Your task to perform on an android device: Open eBay Image 0: 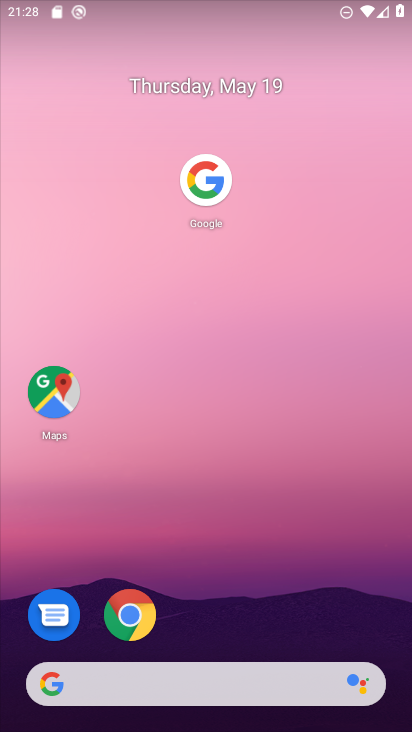
Step 0: drag from (241, 609) to (275, 67)
Your task to perform on an android device: Open eBay Image 1: 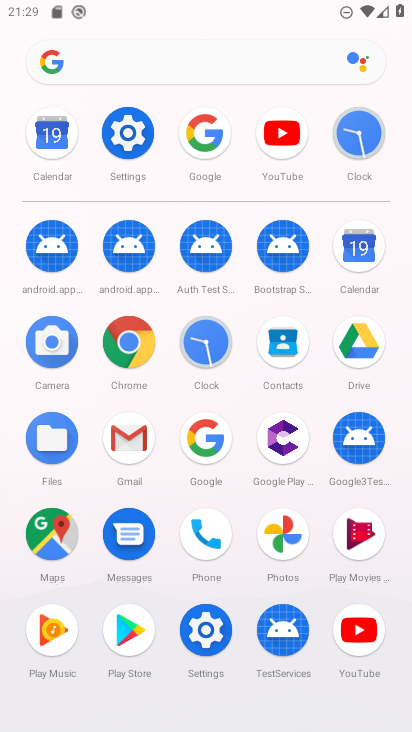
Step 1: click (203, 145)
Your task to perform on an android device: Open eBay Image 2: 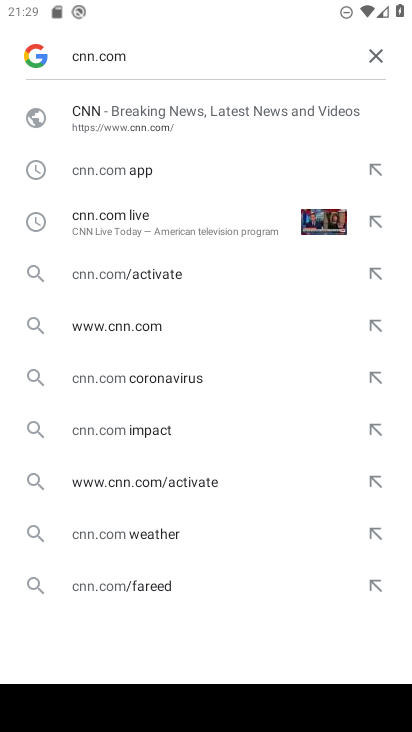
Step 2: click (379, 61)
Your task to perform on an android device: Open eBay Image 3: 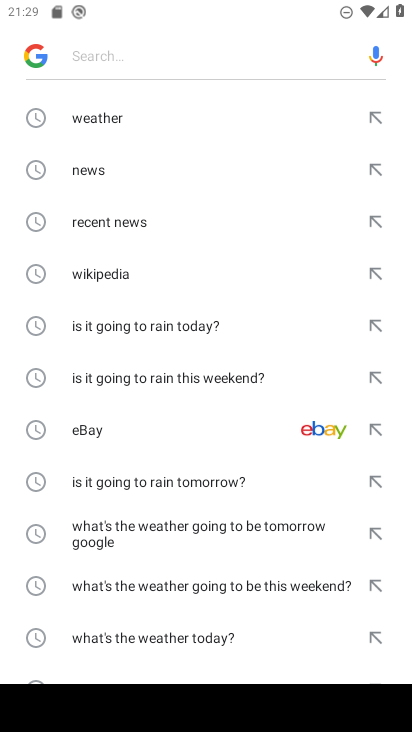
Step 3: click (141, 431)
Your task to perform on an android device: Open eBay Image 4: 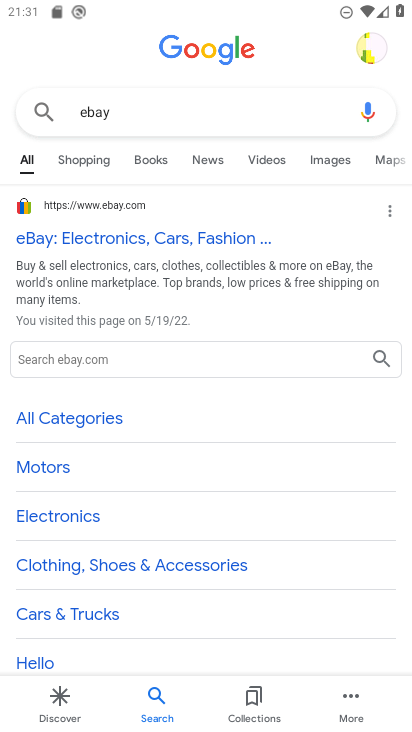
Step 4: task complete